Your task to perform on an android device: toggle location history Image 0: 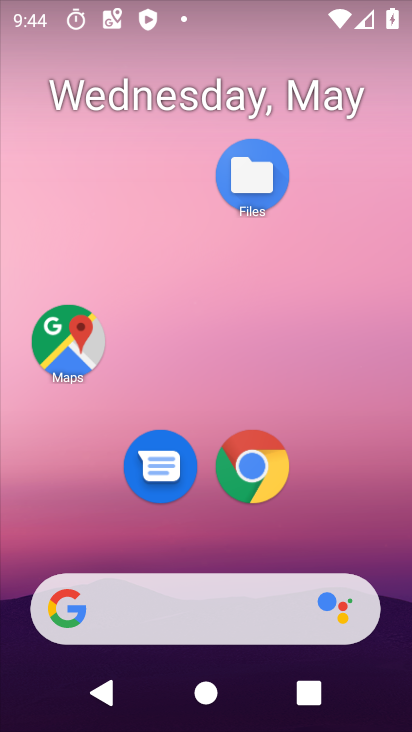
Step 0: drag from (263, 674) to (160, 98)
Your task to perform on an android device: toggle location history Image 1: 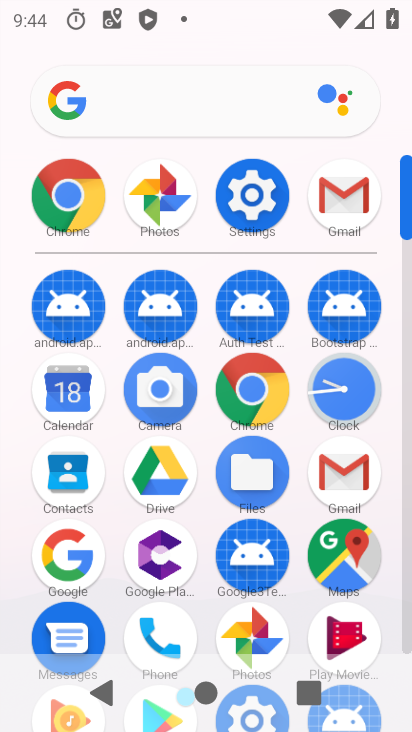
Step 1: click (335, 547)
Your task to perform on an android device: toggle location history Image 2: 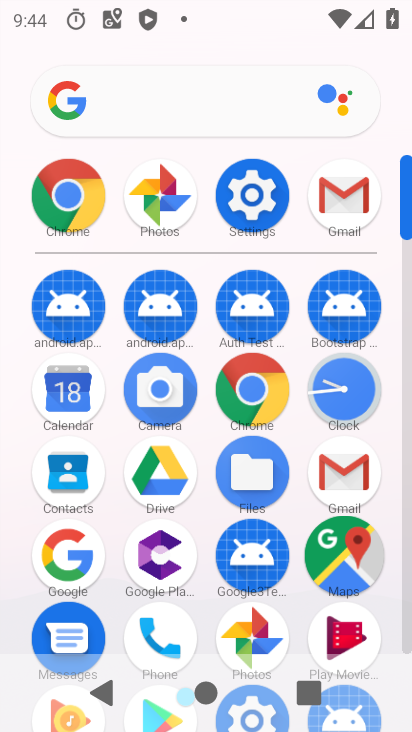
Step 2: click (335, 547)
Your task to perform on an android device: toggle location history Image 3: 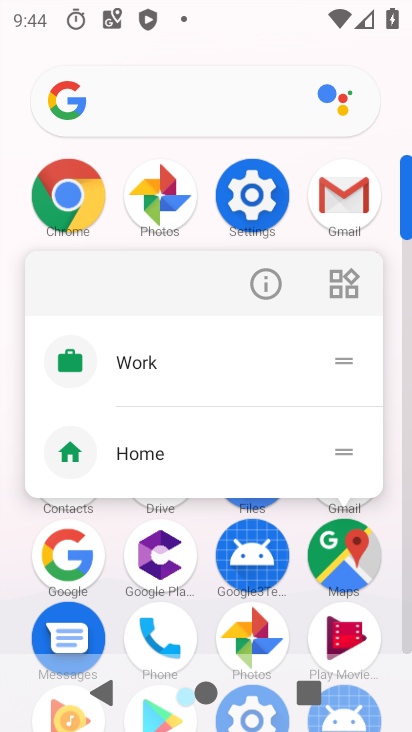
Step 3: click (333, 542)
Your task to perform on an android device: toggle location history Image 4: 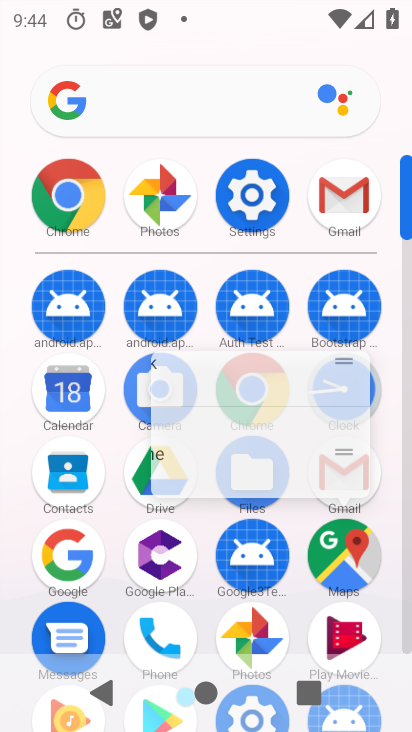
Step 4: click (332, 542)
Your task to perform on an android device: toggle location history Image 5: 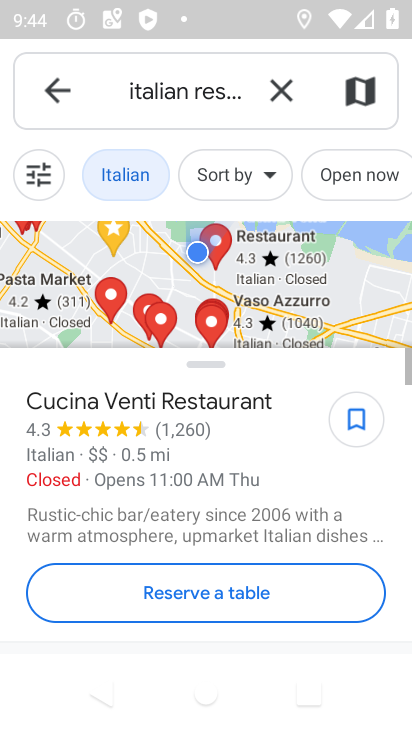
Step 5: click (47, 84)
Your task to perform on an android device: toggle location history Image 6: 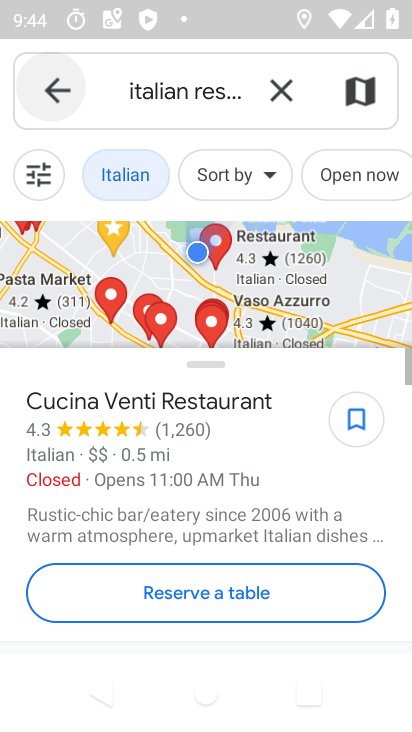
Step 6: click (48, 83)
Your task to perform on an android device: toggle location history Image 7: 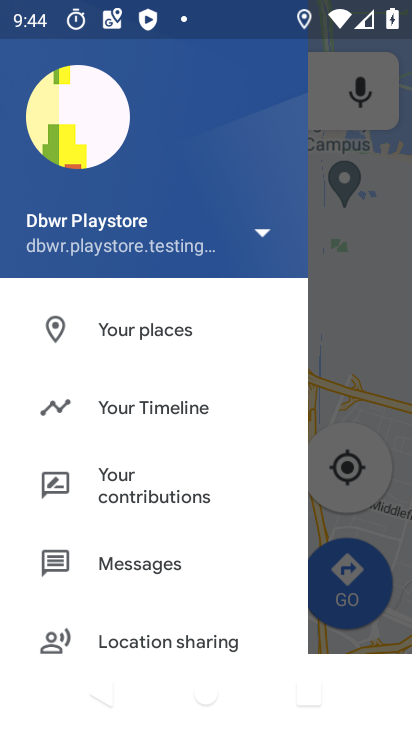
Step 7: click (348, 321)
Your task to perform on an android device: toggle location history Image 8: 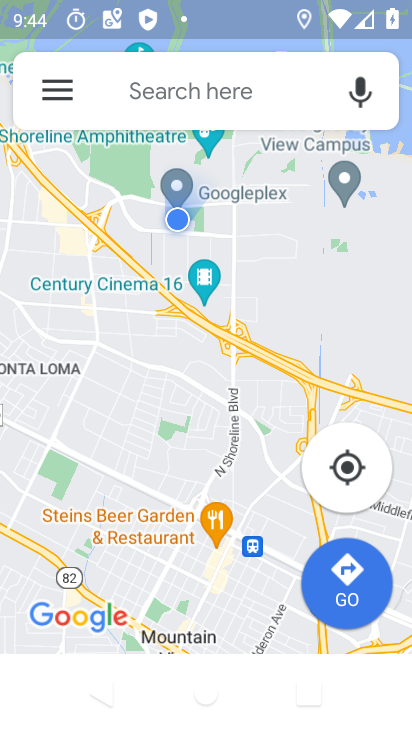
Step 8: click (59, 92)
Your task to perform on an android device: toggle location history Image 9: 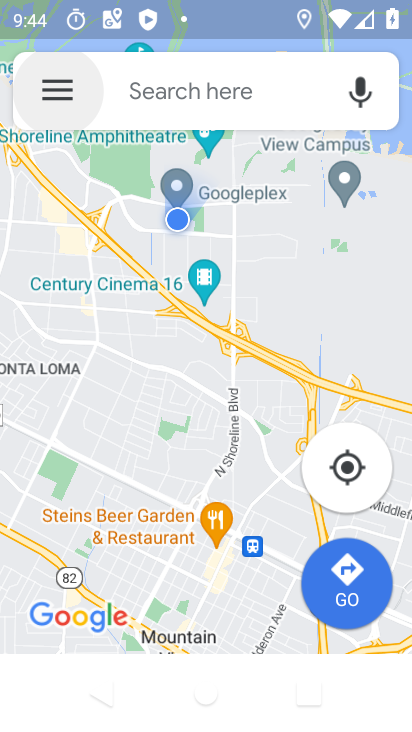
Step 9: click (58, 93)
Your task to perform on an android device: toggle location history Image 10: 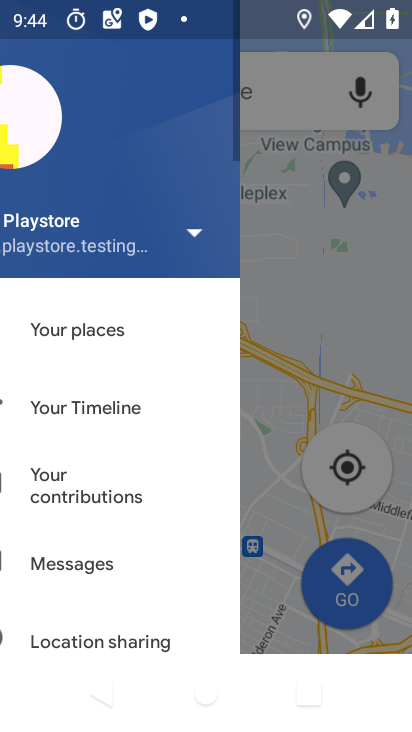
Step 10: click (58, 93)
Your task to perform on an android device: toggle location history Image 11: 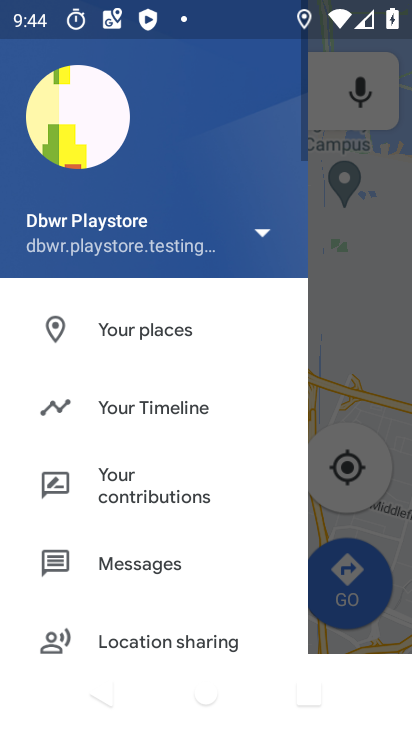
Step 11: click (58, 93)
Your task to perform on an android device: toggle location history Image 12: 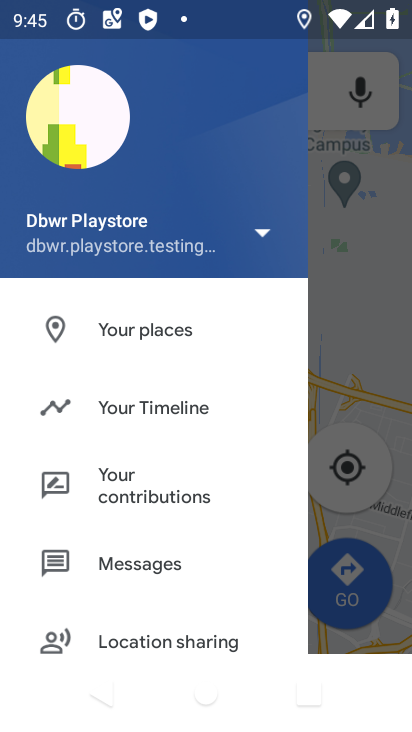
Step 12: click (183, 404)
Your task to perform on an android device: toggle location history Image 13: 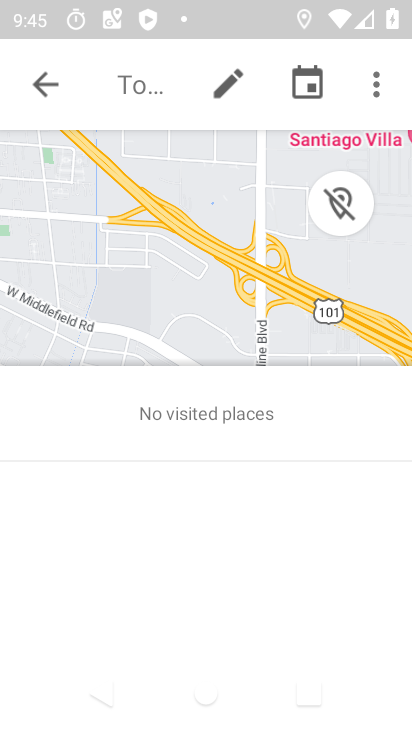
Step 13: click (374, 90)
Your task to perform on an android device: toggle location history Image 14: 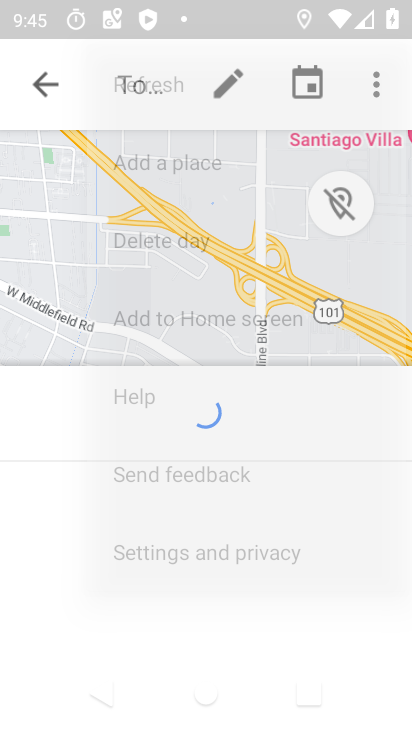
Step 14: click (371, 75)
Your task to perform on an android device: toggle location history Image 15: 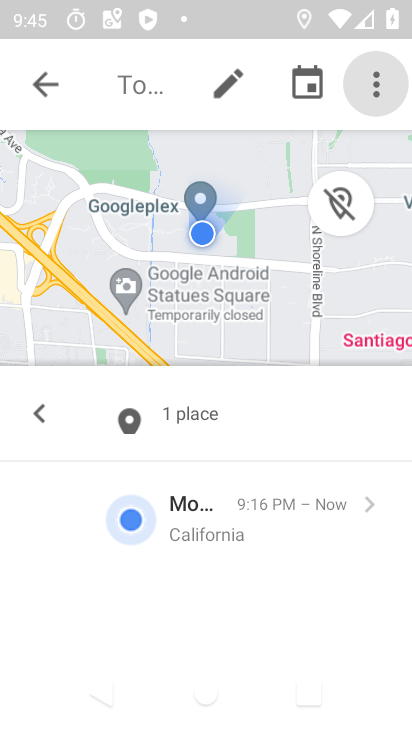
Step 15: drag from (261, 412) to (239, 467)
Your task to perform on an android device: toggle location history Image 16: 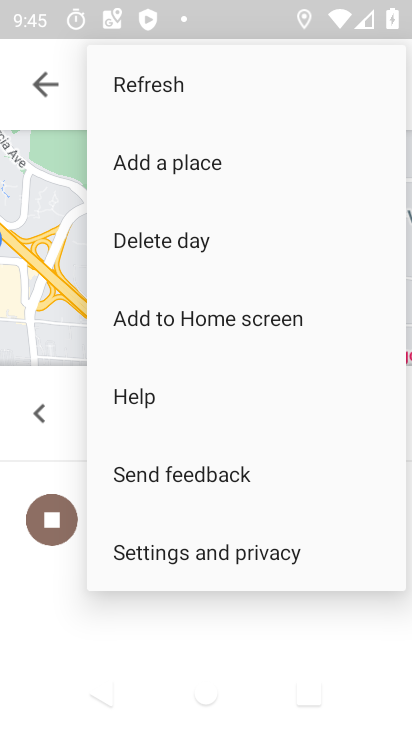
Step 16: click (371, 88)
Your task to perform on an android device: toggle location history Image 17: 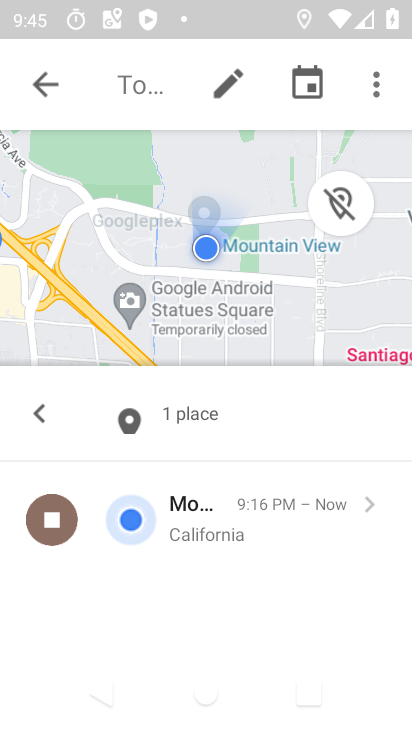
Step 17: click (205, 555)
Your task to perform on an android device: toggle location history Image 18: 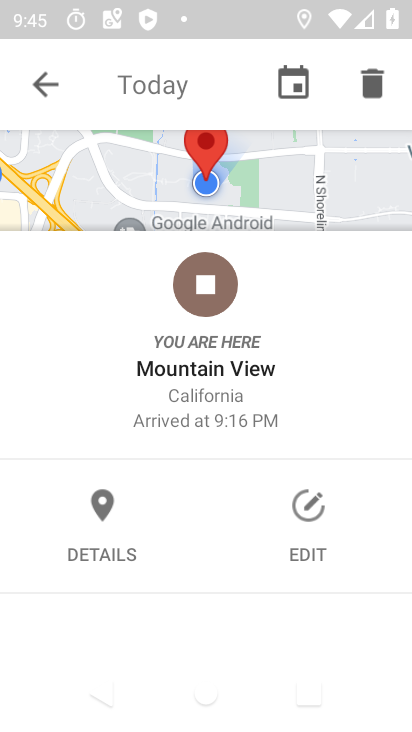
Step 18: click (369, 90)
Your task to perform on an android device: toggle location history Image 19: 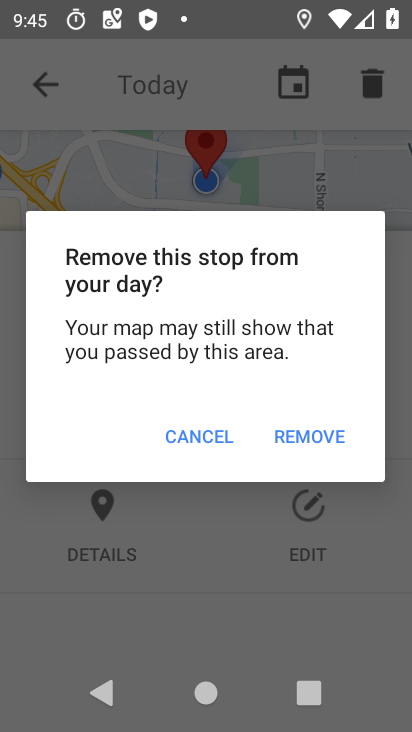
Step 19: click (207, 440)
Your task to perform on an android device: toggle location history Image 20: 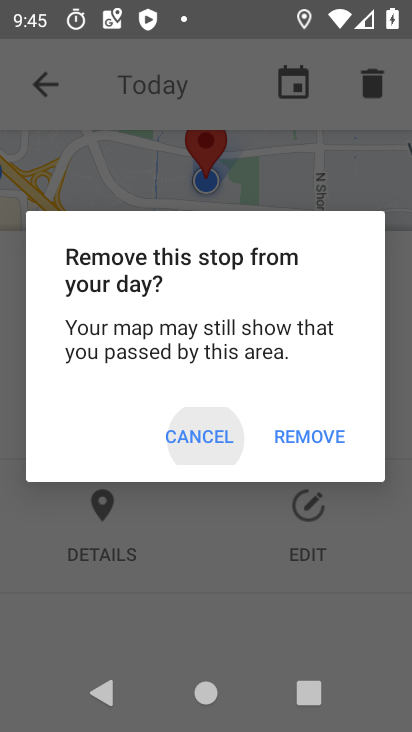
Step 20: click (207, 439)
Your task to perform on an android device: toggle location history Image 21: 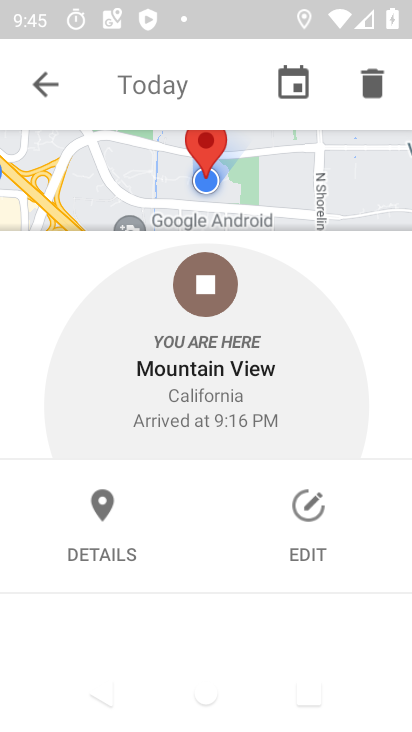
Step 21: click (207, 435)
Your task to perform on an android device: toggle location history Image 22: 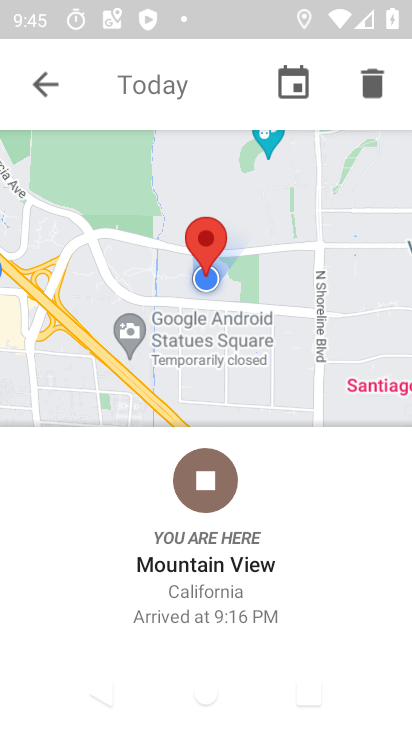
Step 22: click (42, 89)
Your task to perform on an android device: toggle location history Image 23: 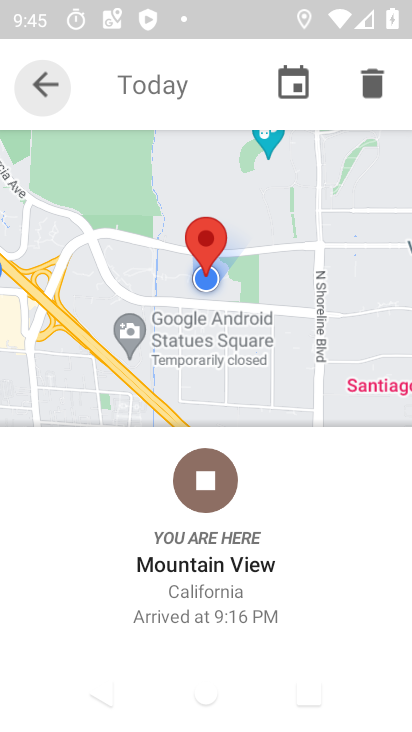
Step 23: click (43, 88)
Your task to perform on an android device: toggle location history Image 24: 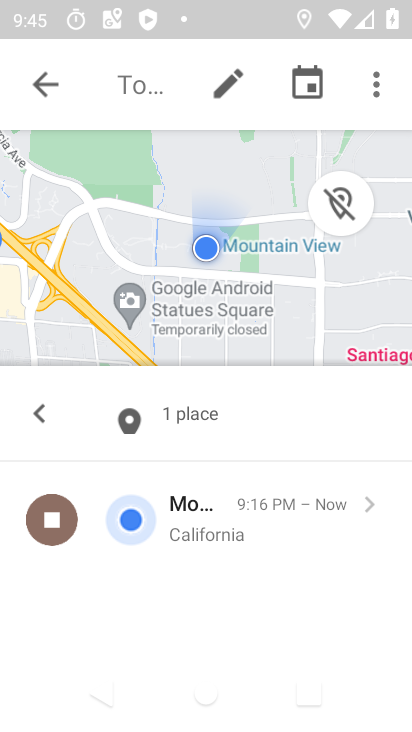
Step 24: click (372, 86)
Your task to perform on an android device: toggle location history Image 25: 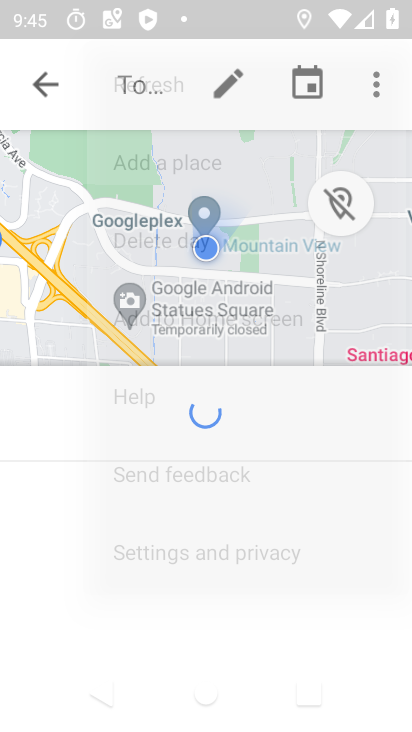
Step 25: click (374, 90)
Your task to perform on an android device: toggle location history Image 26: 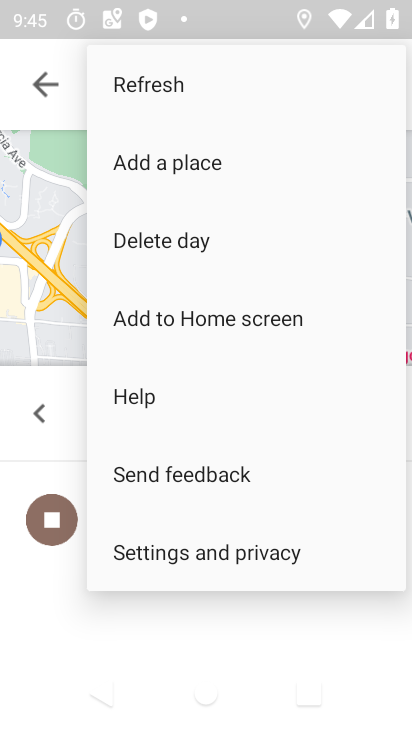
Step 26: click (225, 554)
Your task to perform on an android device: toggle location history Image 27: 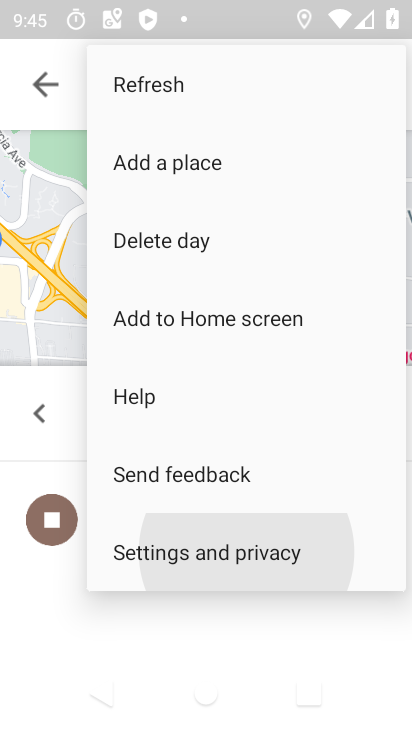
Step 27: click (224, 553)
Your task to perform on an android device: toggle location history Image 28: 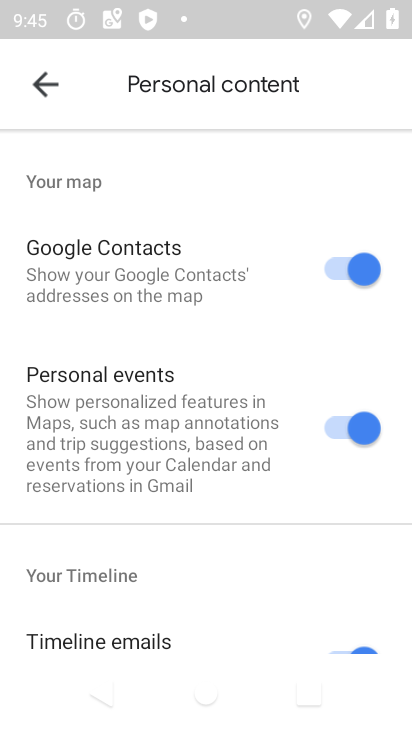
Step 28: drag from (127, 383) to (26, 161)
Your task to perform on an android device: toggle location history Image 29: 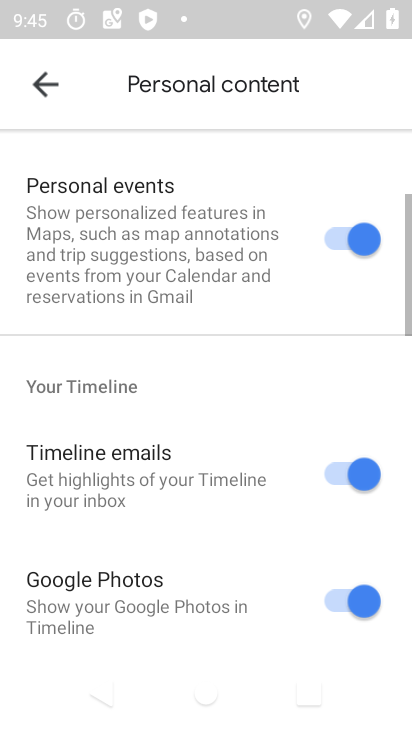
Step 29: drag from (140, 380) to (101, 112)
Your task to perform on an android device: toggle location history Image 30: 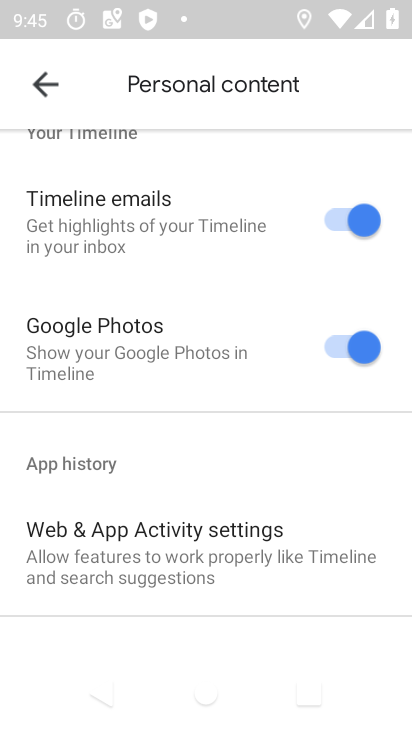
Step 30: drag from (188, 354) to (141, 188)
Your task to perform on an android device: toggle location history Image 31: 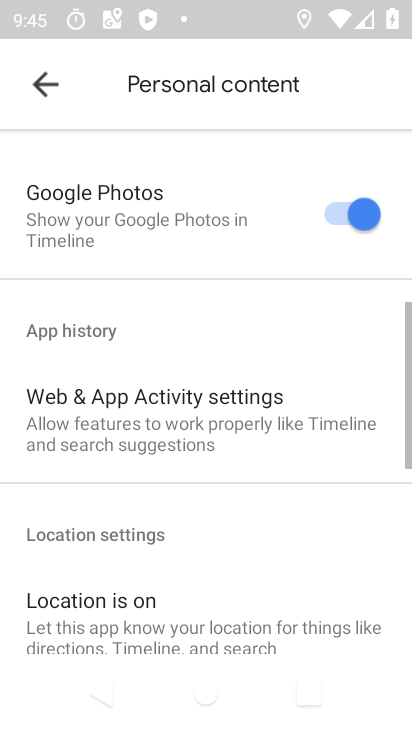
Step 31: drag from (206, 434) to (193, 107)
Your task to perform on an android device: toggle location history Image 32: 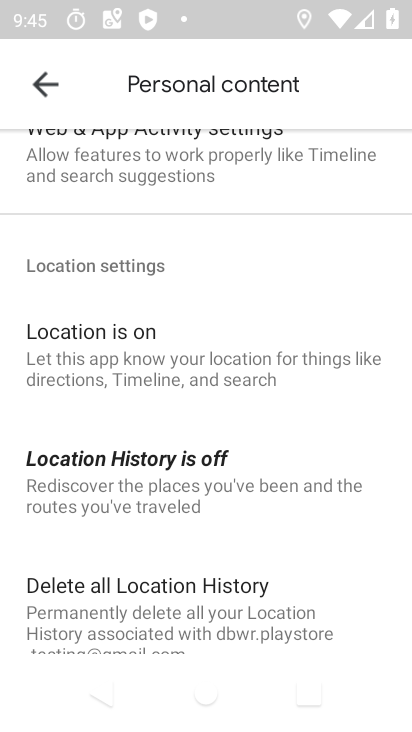
Step 32: click (113, 471)
Your task to perform on an android device: toggle location history Image 33: 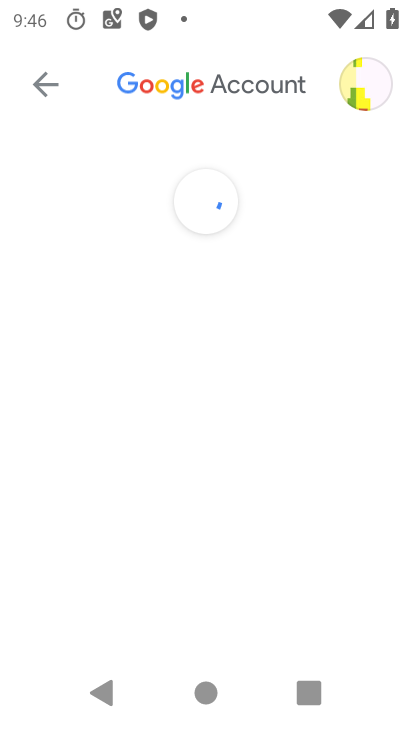
Step 33: drag from (222, 509) to (200, 20)
Your task to perform on an android device: toggle location history Image 34: 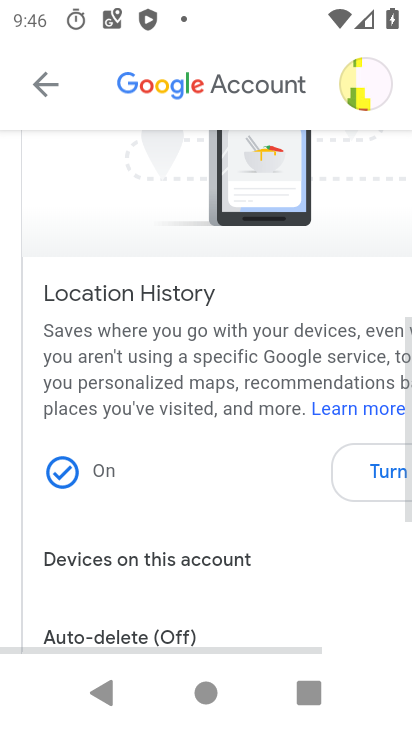
Step 34: drag from (242, 444) to (170, 7)
Your task to perform on an android device: toggle location history Image 35: 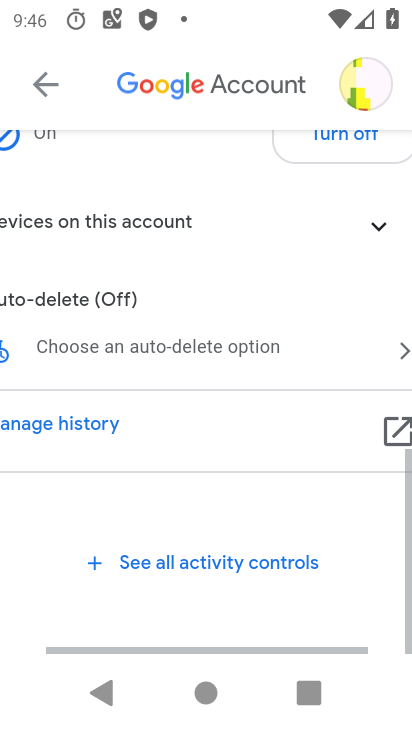
Step 35: drag from (266, 411) to (202, 152)
Your task to perform on an android device: toggle location history Image 36: 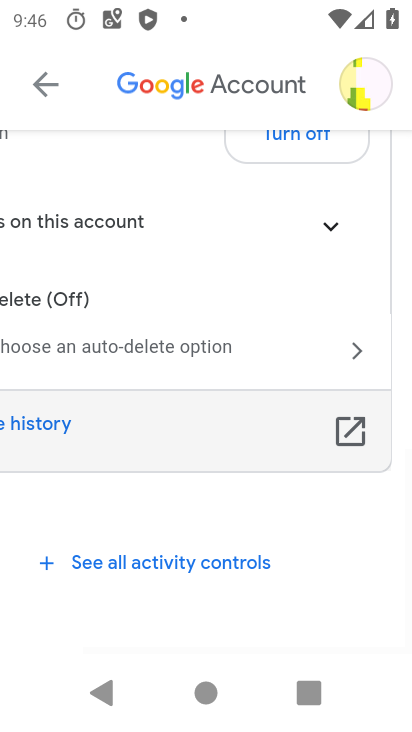
Step 36: drag from (303, 408) to (227, 141)
Your task to perform on an android device: toggle location history Image 37: 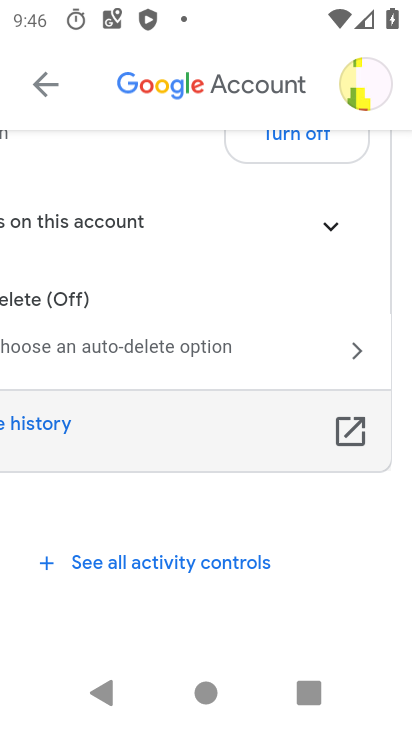
Step 37: drag from (267, 474) to (246, 158)
Your task to perform on an android device: toggle location history Image 38: 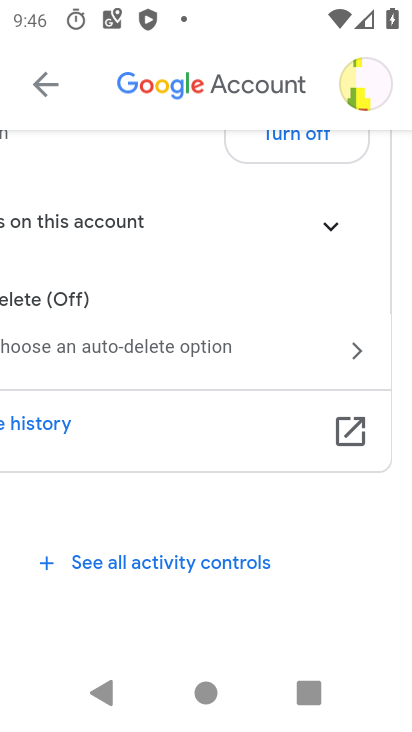
Step 38: drag from (289, 376) to (284, 95)
Your task to perform on an android device: toggle location history Image 39: 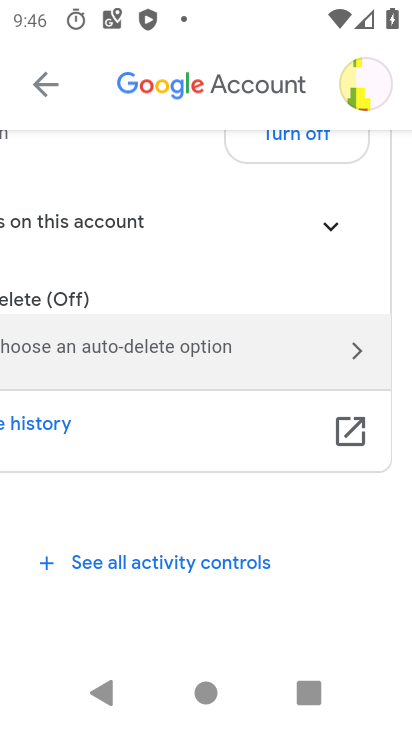
Step 39: drag from (251, 446) to (198, 86)
Your task to perform on an android device: toggle location history Image 40: 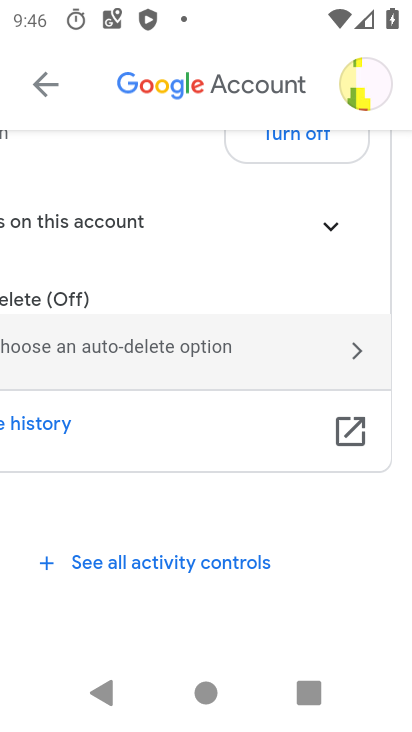
Step 40: drag from (182, 451) to (149, 148)
Your task to perform on an android device: toggle location history Image 41: 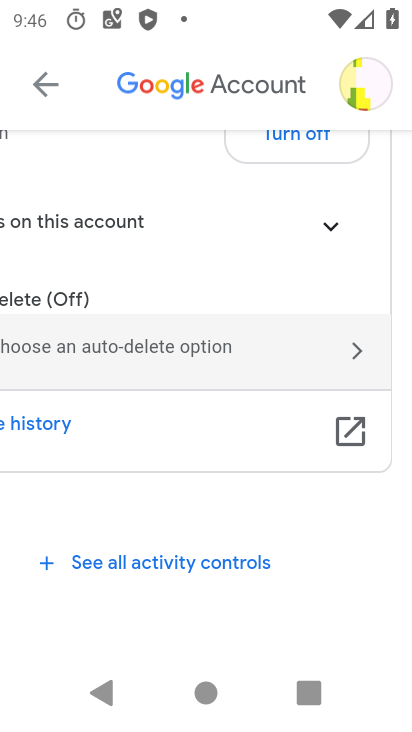
Step 41: drag from (196, 216) to (318, 574)
Your task to perform on an android device: toggle location history Image 42: 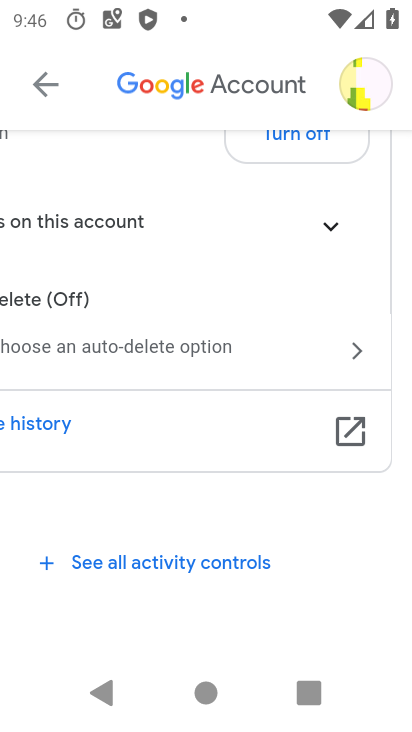
Step 42: drag from (161, 215) to (223, 454)
Your task to perform on an android device: toggle location history Image 43: 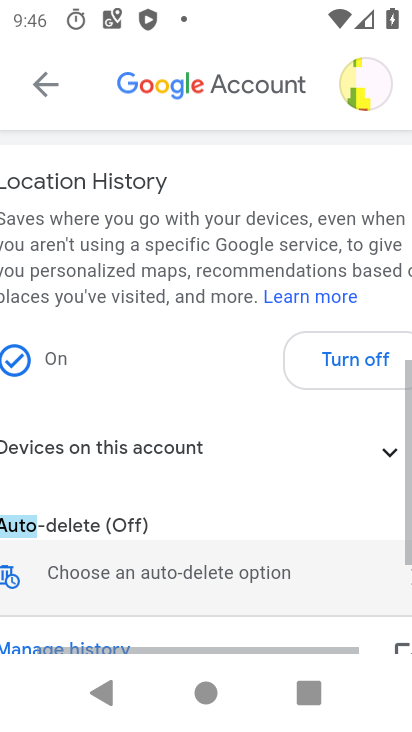
Step 43: drag from (156, 252) to (270, 490)
Your task to perform on an android device: toggle location history Image 44: 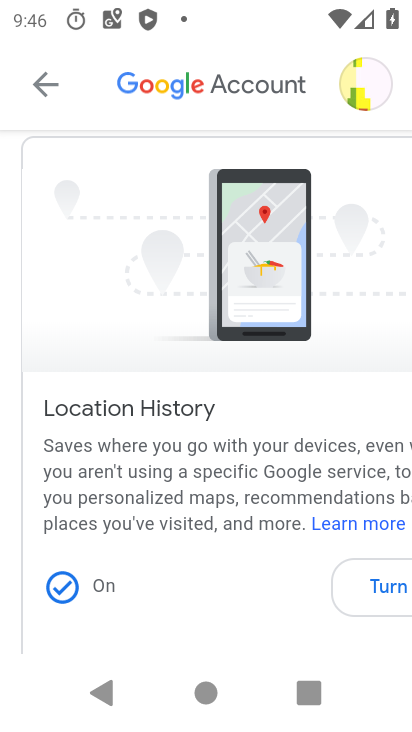
Step 44: drag from (216, 620) to (132, 246)
Your task to perform on an android device: toggle location history Image 45: 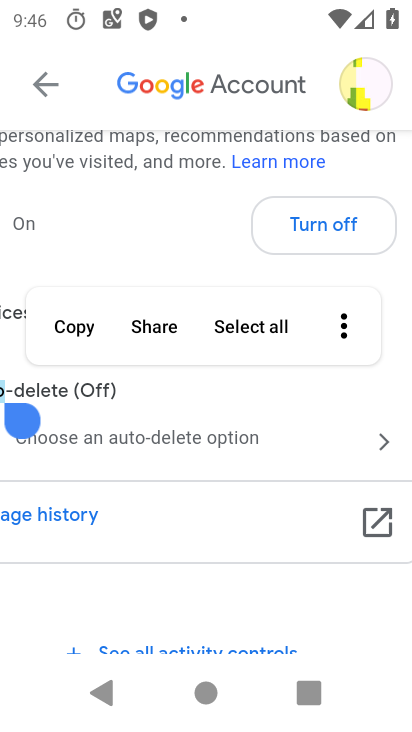
Step 45: click (312, 219)
Your task to perform on an android device: toggle location history Image 46: 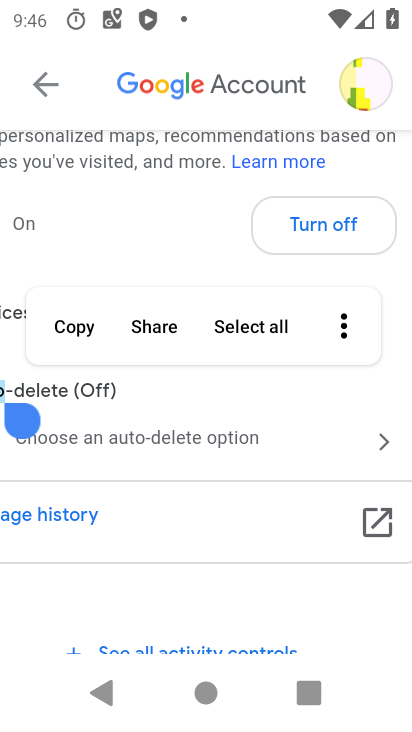
Step 46: task complete